Your task to perform on an android device: Open Yahoo.com Image 0: 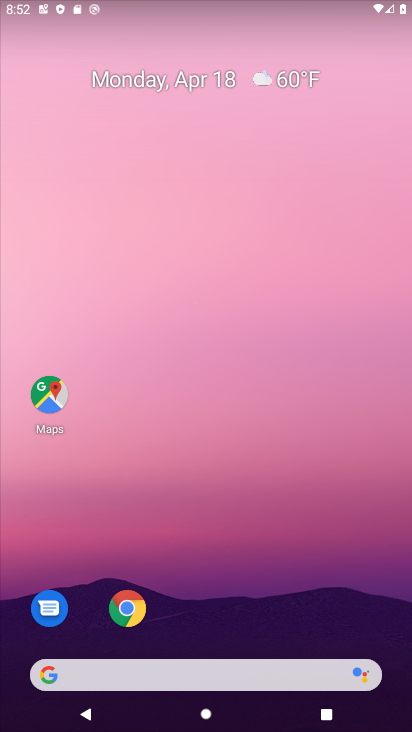
Step 0: drag from (273, 164) to (299, 55)
Your task to perform on an android device: Open Yahoo.com Image 1: 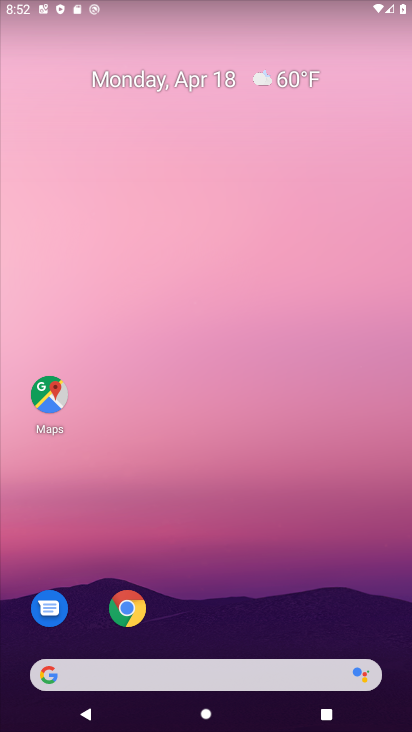
Step 1: drag from (231, 574) to (254, 118)
Your task to perform on an android device: Open Yahoo.com Image 2: 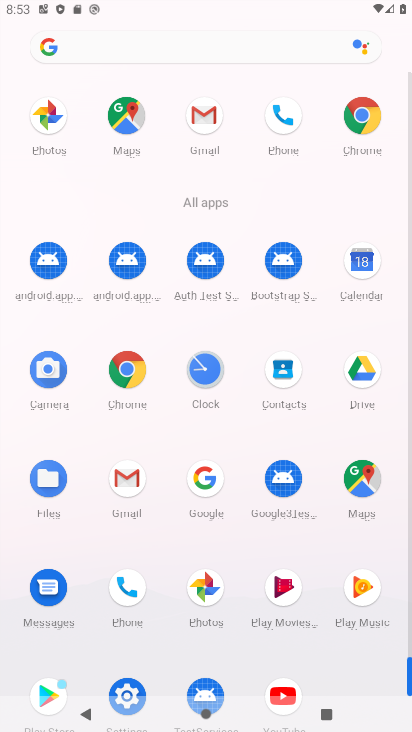
Step 2: click (358, 108)
Your task to perform on an android device: Open Yahoo.com Image 3: 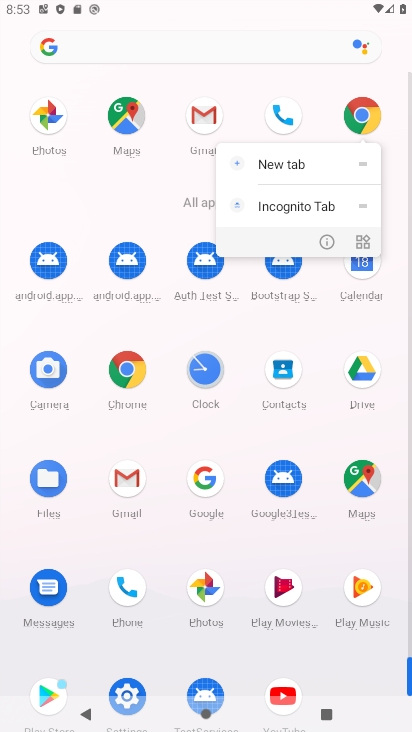
Step 3: click (320, 241)
Your task to perform on an android device: Open Yahoo.com Image 4: 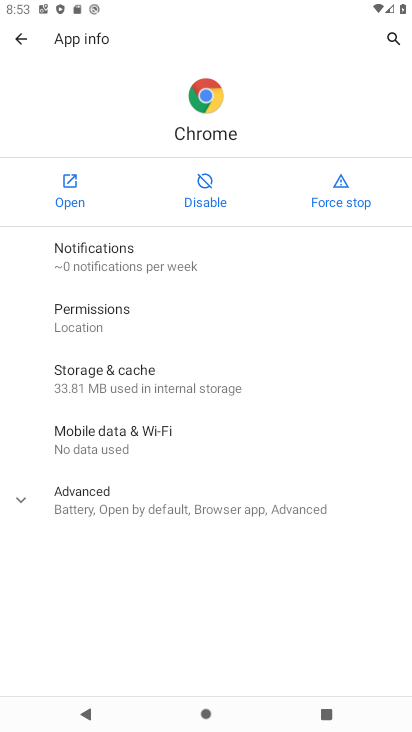
Step 4: click (71, 181)
Your task to perform on an android device: Open Yahoo.com Image 5: 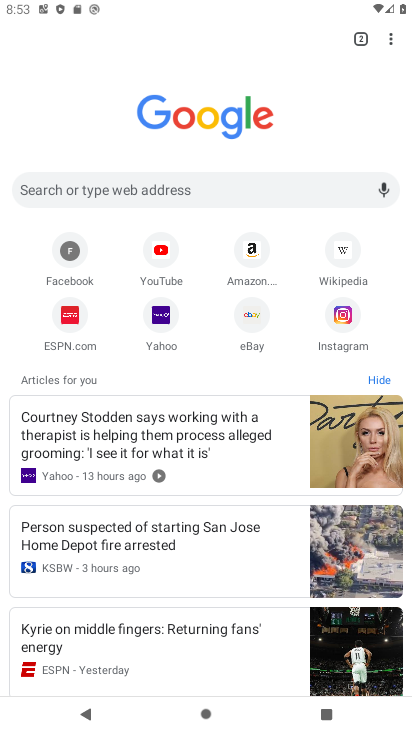
Step 5: click (184, 188)
Your task to perform on an android device: Open Yahoo.com Image 6: 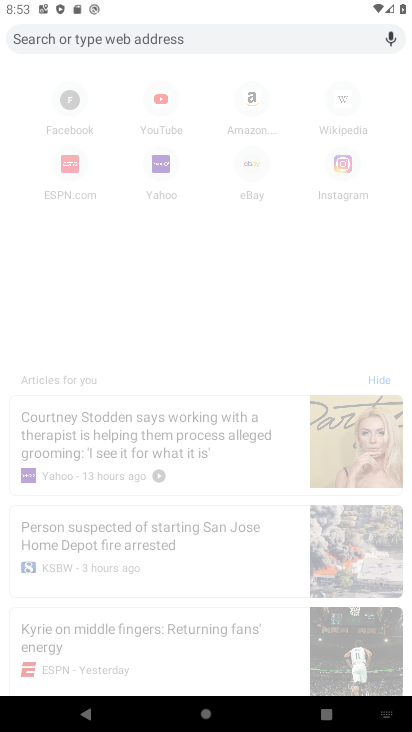
Step 6: type "yahoo.com"
Your task to perform on an android device: Open Yahoo.com Image 7: 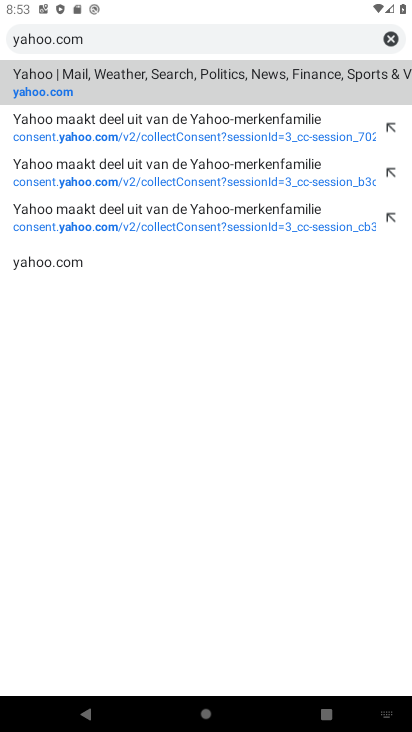
Step 7: click (37, 93)
Your task to perform on an android device: Open Yahoo.com Image 8: 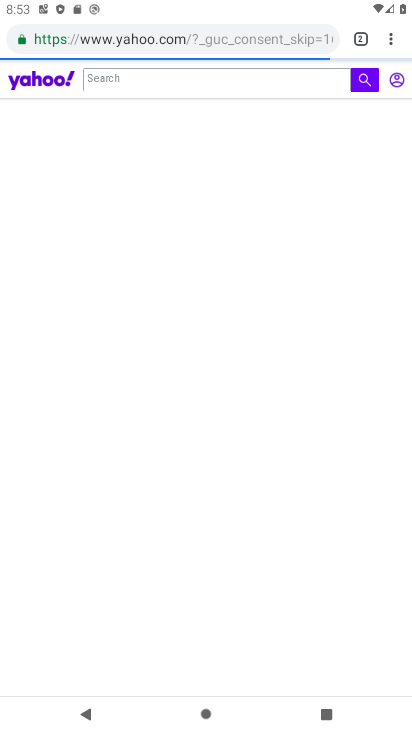
Step 8: task complete